Your task to perform on an android device: Show the shopping cart on target. Search for "amazon basics triple a" on target, select the first entry, and add it to the cart. Image 0: 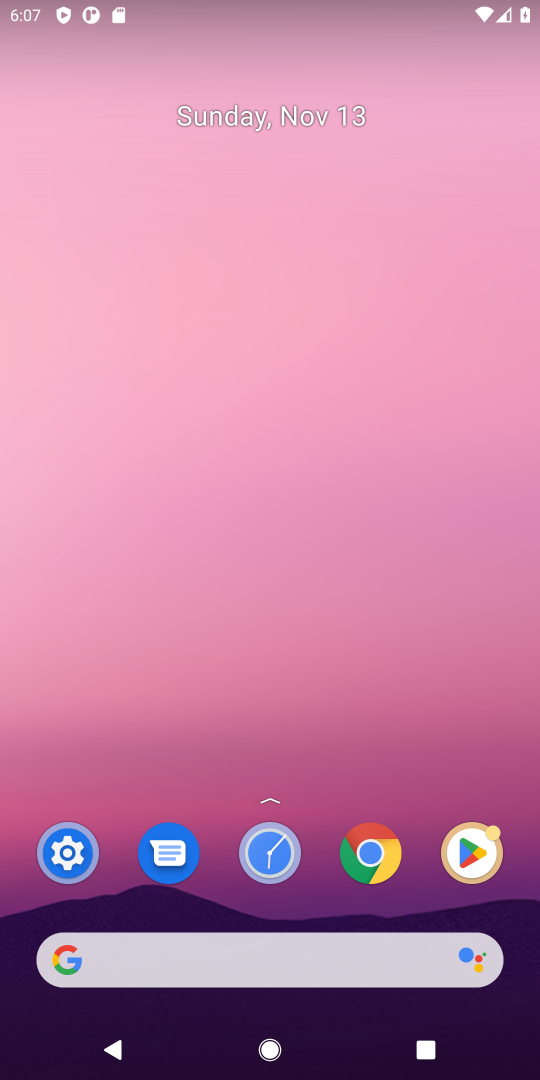
Step 0: press home button
Your task to perform on an android device: Show the shopping cart on target. Search for "amazon basics triple a" on target, select the first entry, and add it to the cart. Image 1: 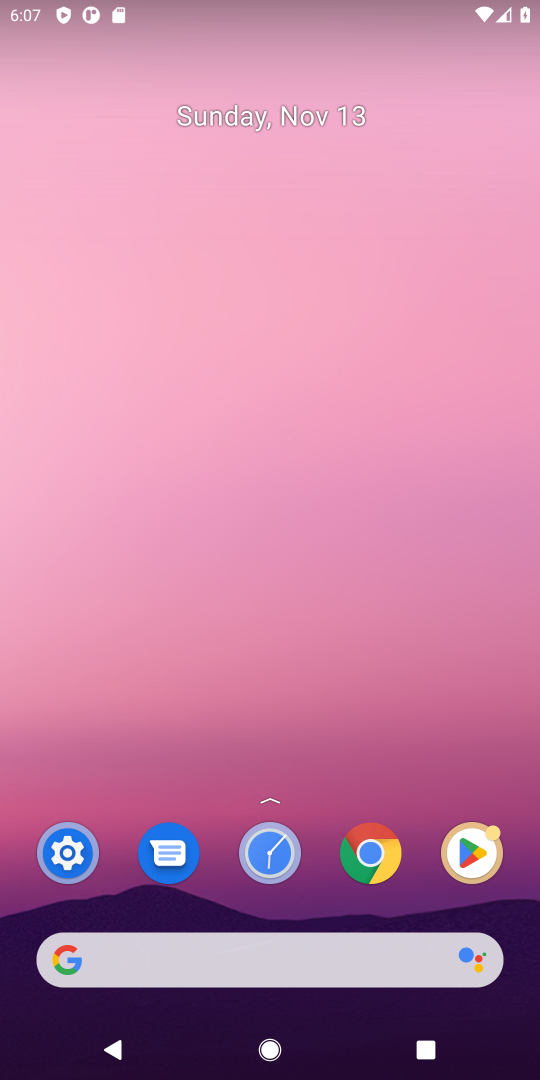
Step 1: click (94, 954)
Your task to perform on an android device: Show the shopping cart on target. Search for "amazon basics triple a" on target, select the first entry, and add it to the cart. Image 2: 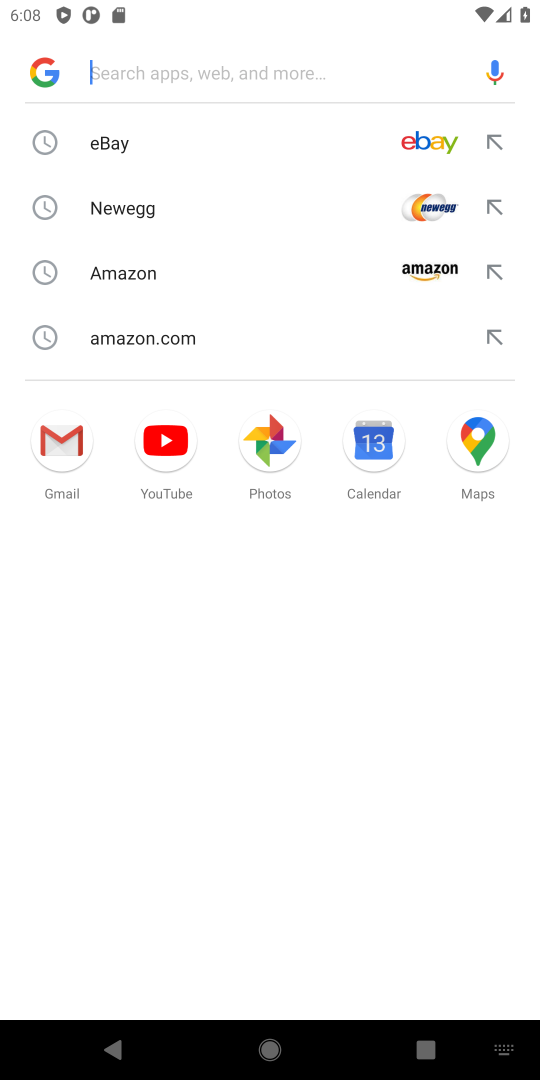
Step 2: type "target."
Your task to perform on an android device: Show the shopping cart on target. Search for "amazon basics triple a" on target, select the first entry, and add it to the cart. Image 3: 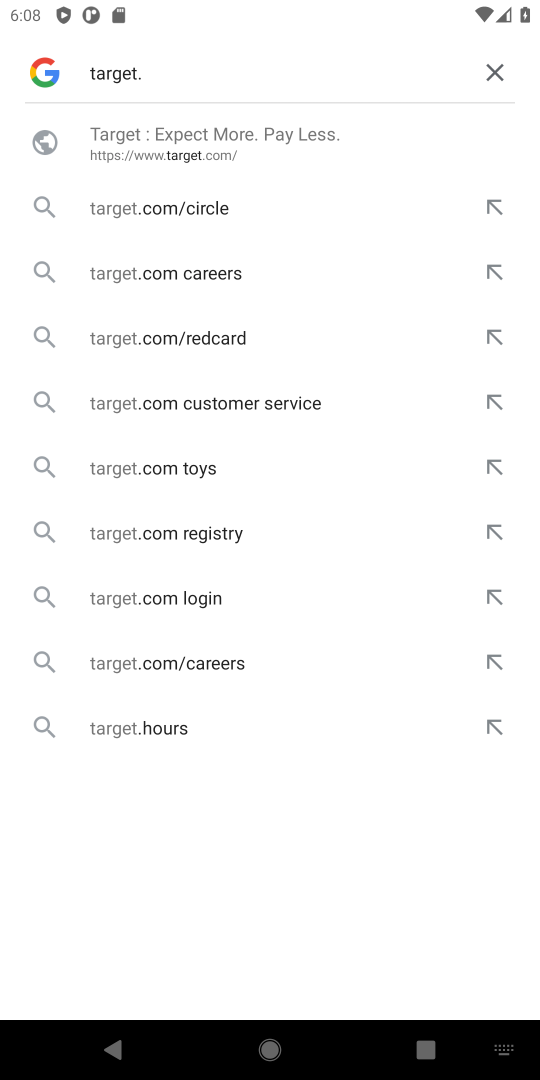
Step 3: press enter
Your task to perform on an android device: Show the shopping cart on target. Search for "amazon basics triple a" on target, select the first entry, and add it to the cart. Image 4: 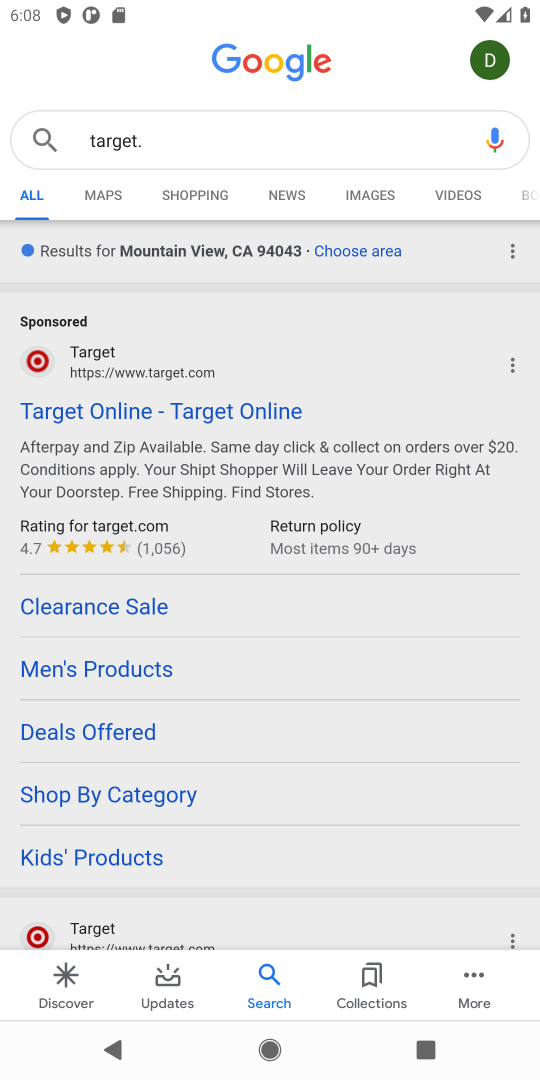
Step 4: click (115, 414)
Your task to perform on an android device: Show the shopping cart on target. Search for "amazon basics triple a" on target, select the first entry, and add it to the cart. Image 5: 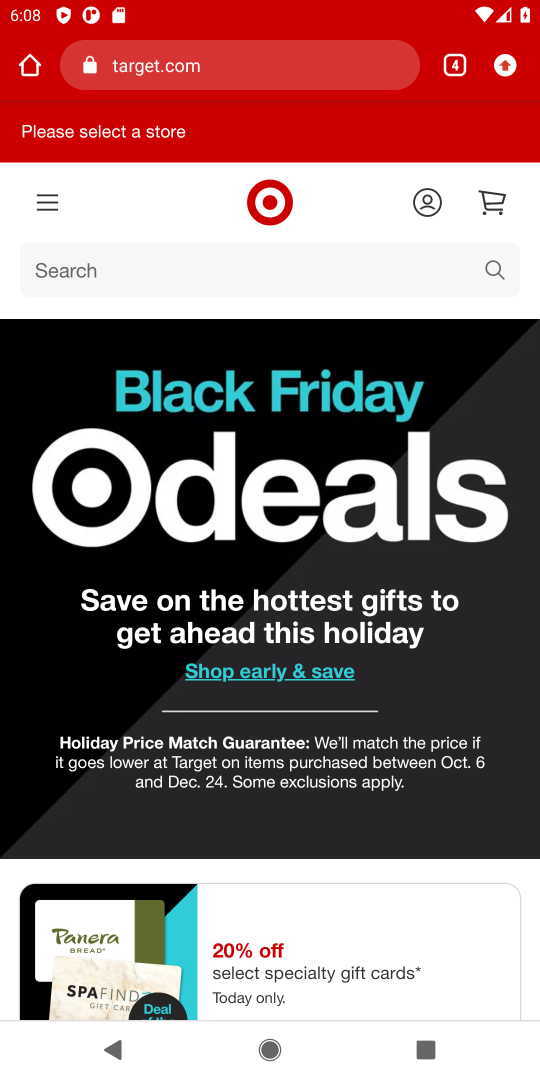
Step 5: click (487, 200)
Your task to perform on an android device: Show the shopping cart on target. Search for "amazon basics triple a" on target, select the first entry, and add it to the cart. Image 6: 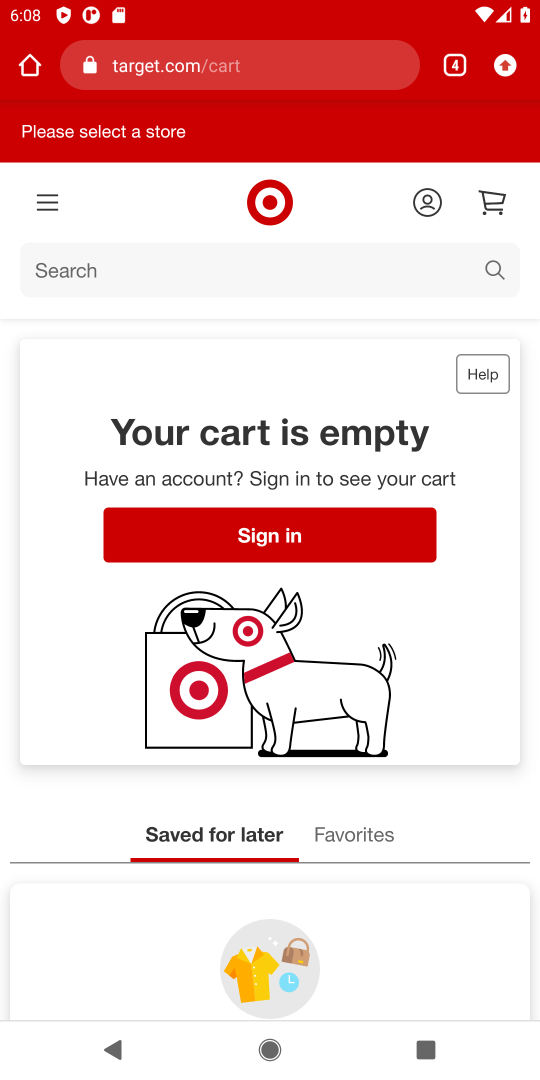
Step 6: click (94, 264)
Your task to perform on an android device: Show the shopping cart on target. Search for "amazon basics triple a" on target, select the first entry, and add it to the cart. Image 7: 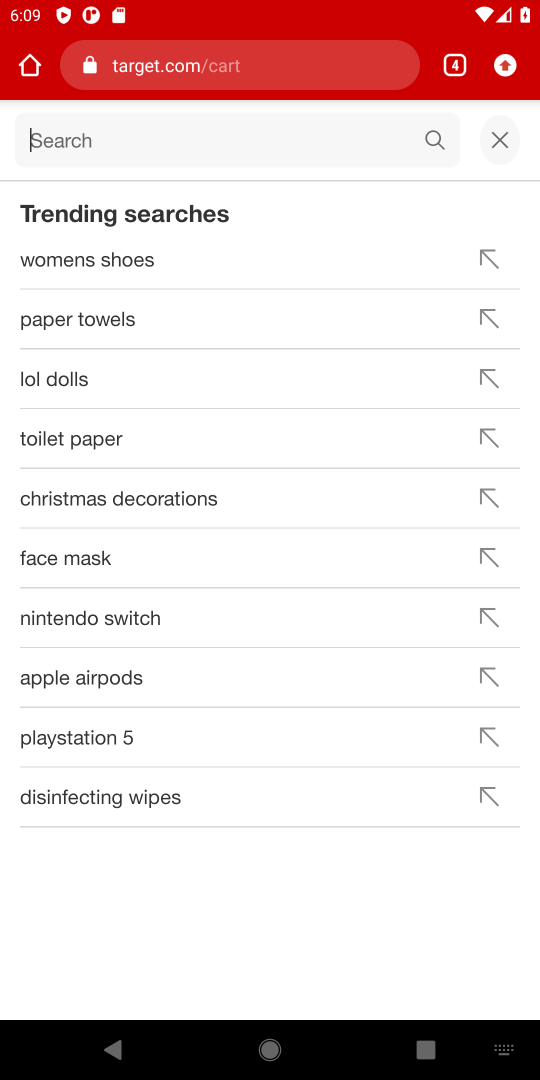
Step 7: type "amazon basics triple a"
Your task to perform on an android device: Show the shopping cart on target. Search for "amazon basics triple a" on target, select the first entry, and add it to the cart. Image 8: 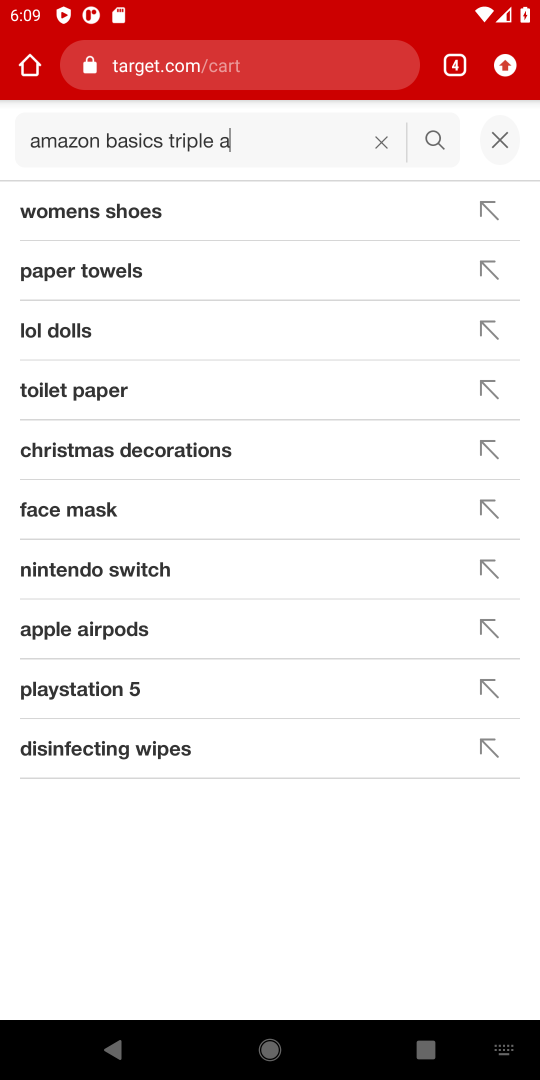
Step 8: press enter
Your task to perform on an android device: Show the shopping cart on target. Search for "amazon basics triple a" on target, select the first entry, and add it to the cart. Image 9: 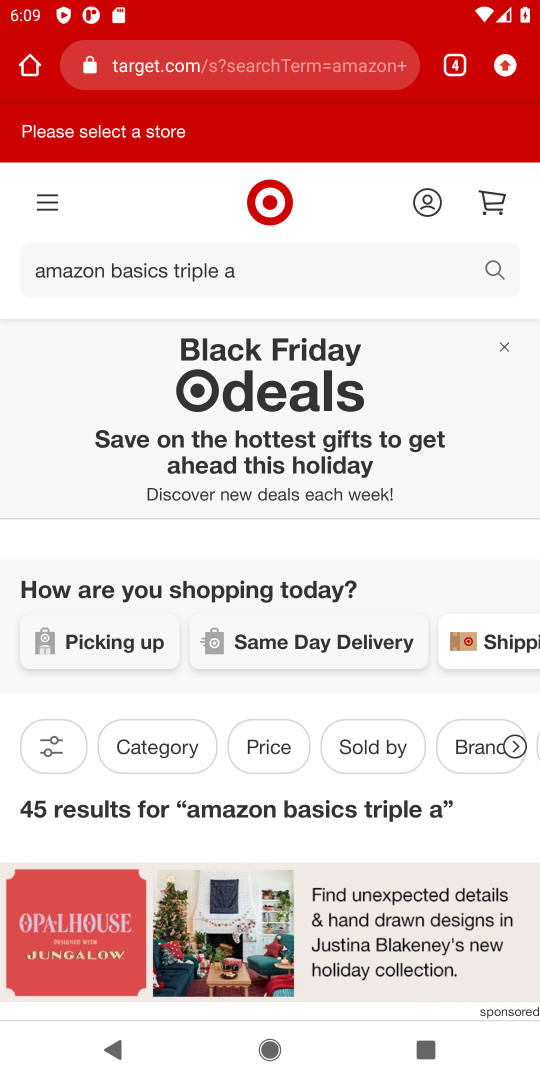
Step 9: task complete